Your task to perform on an android device: turn off javascript in the chrome app Image 0: 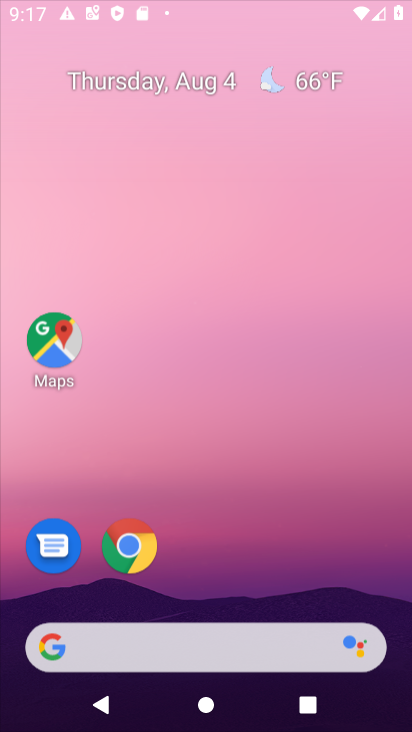
Step 0: press home button
Your task to perform on an android device: turn off javascript in the chrome app Image 1: 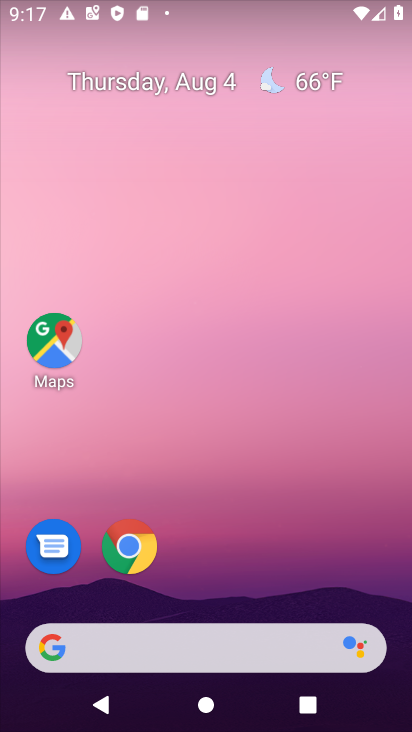
Step 1: drag from (237, 596) to (304, 28)
Your task to perform on an android device: turn off javascript in the chrome app Image 2: 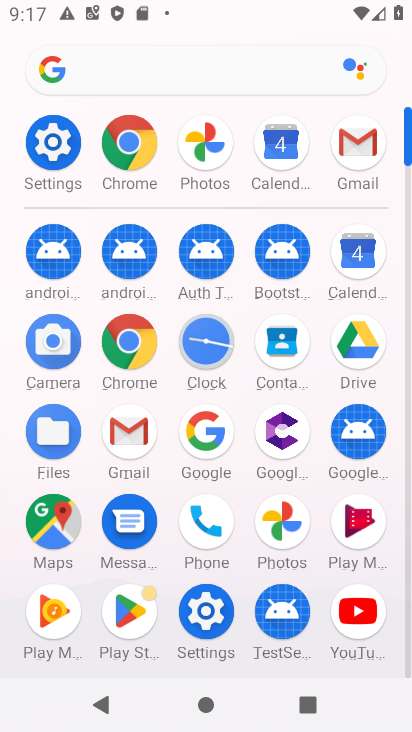
Step 2: click (126, 147)
Your task to perform on an android device: turn off javascript in the chrome app Image 3: 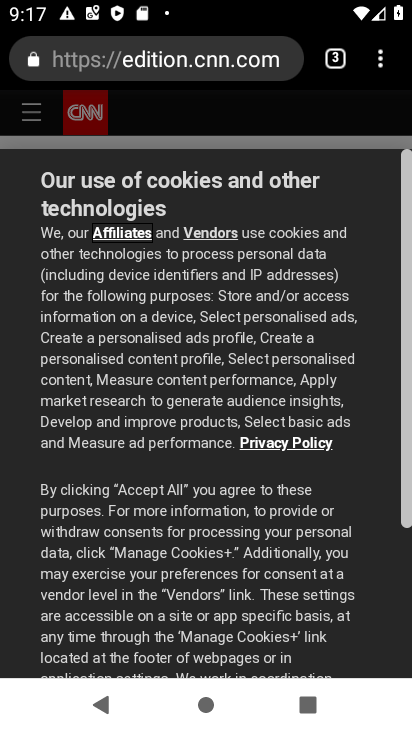
Step 3: drag from (385, 67) to (174, 572)
Your task to perform on an android device: turn off javascript in the chrome app Image 4: 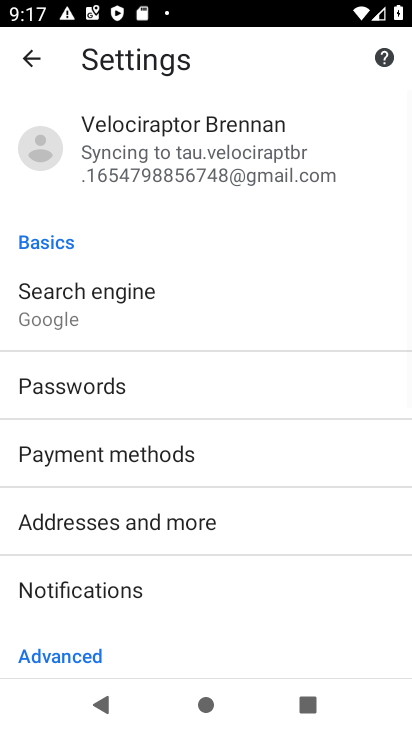
Step 4: drag from (278, 629) to (290, 166)
Your task to perform on an android device: turn off javascript in the chrome app Image 5: 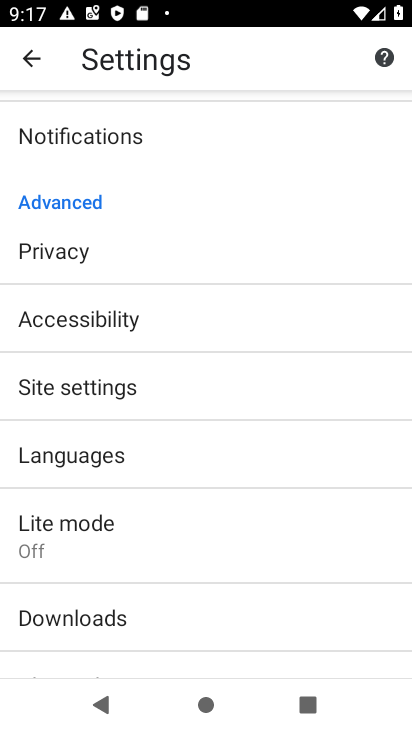
Step 5: click (65, 390)
Your task to perform on an android device: turn off javascript in the chrome app Image 6: 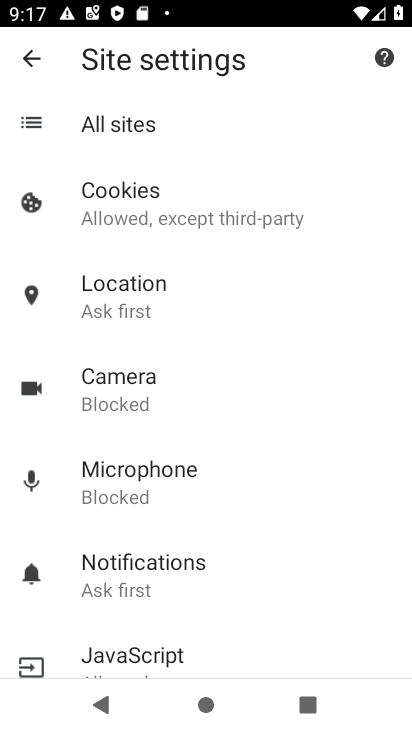
Step 6: drag from (307, 572) to (317, 290)
Your task to perform on an android device: turn off javascript in the chrome app Image 7: 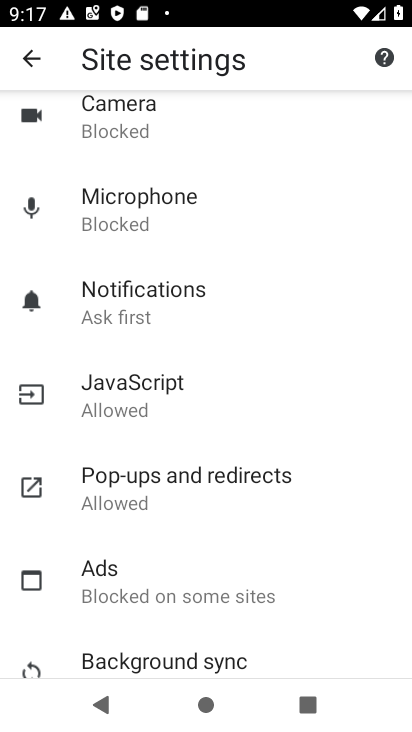
Step 7: click (112, 388)
Your task to perform on an android device: turn off javascript in the chrome app Image 8: 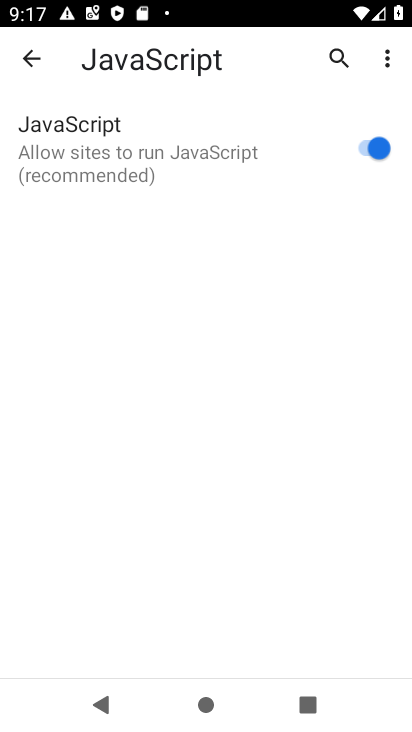
Step 8: click (379, 152)
Your task to perform on an android device: turn off javascript in the chrome app Image 9: 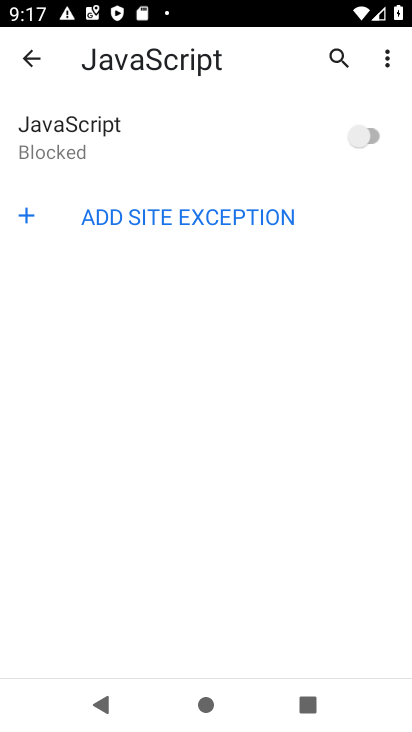
Step 9: task complete